Your task to perform on an android device: all mails in gmail Image 0: 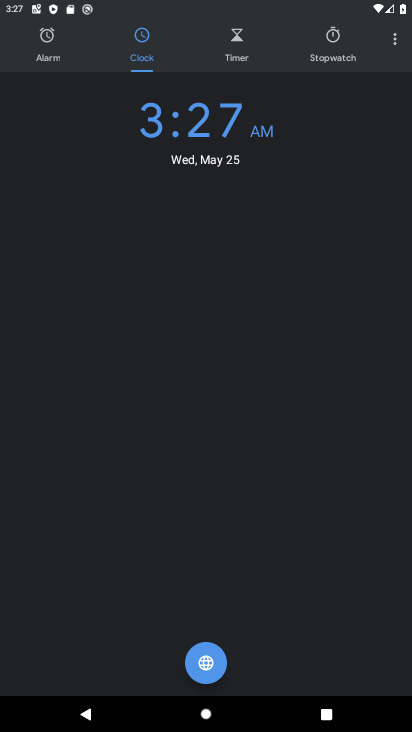
Step 0: press home button
Your task to perform on an android device: all mails in gmail Image 1: 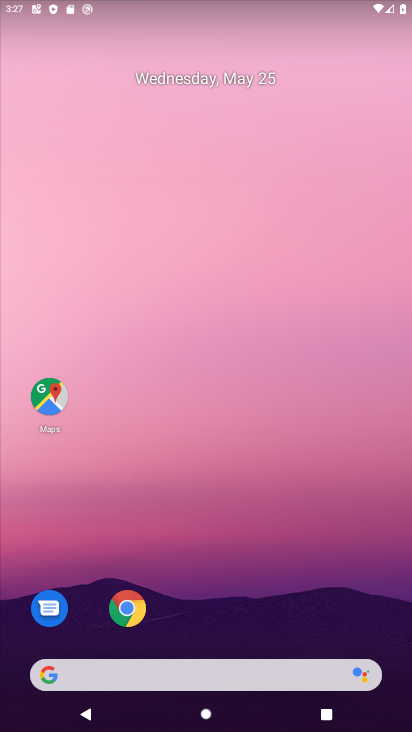
Step 1: drag from (168, 628) to (302, 208)
Your task to perform on an android device: all mails in gmail Image 2: 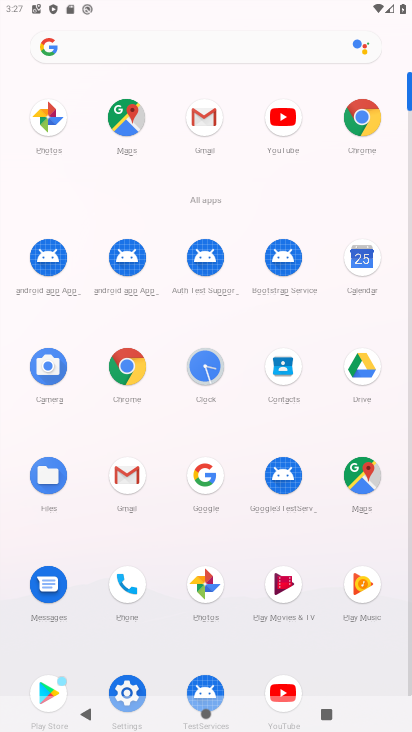
Step 2: click (205, 133)
Your task to perform on an android device: all mails in gmail Image 3: 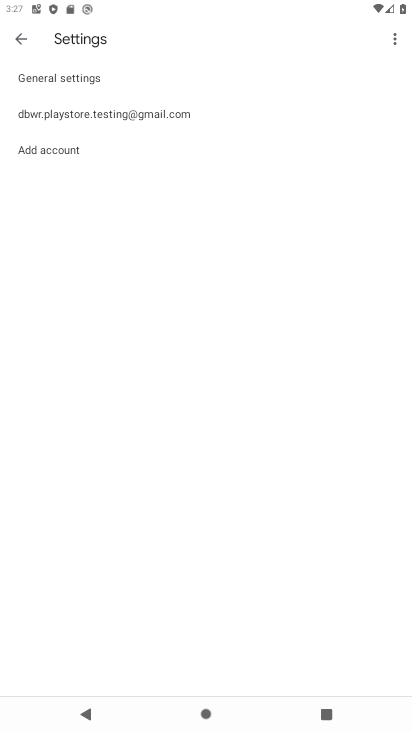
Step 3: click (18, 47)
Your task to perform on an android device: all mails in gmail Image 4: 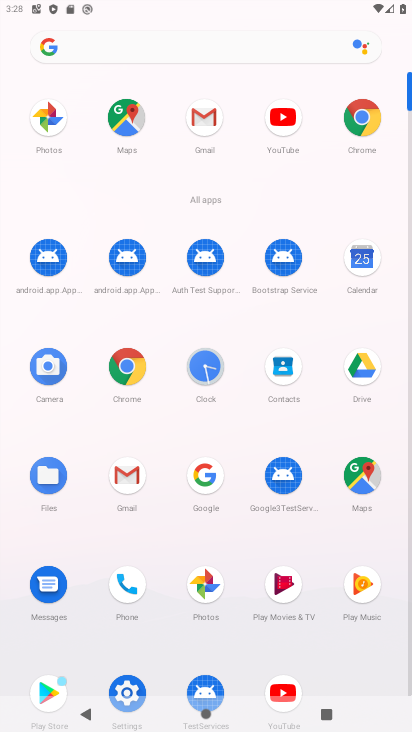
Step 4: click (131, 470)
Your task to perform on an android device: all mails in gmail Image 5: 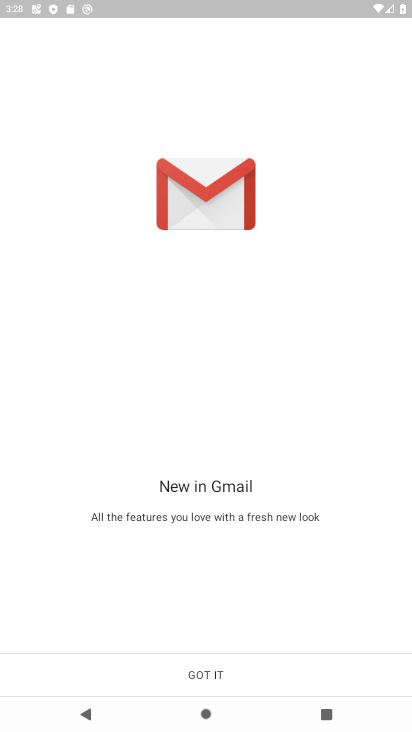
Step 5: click (223, 660)
Your task to perform on an android device: all mails in gmail Image 6: 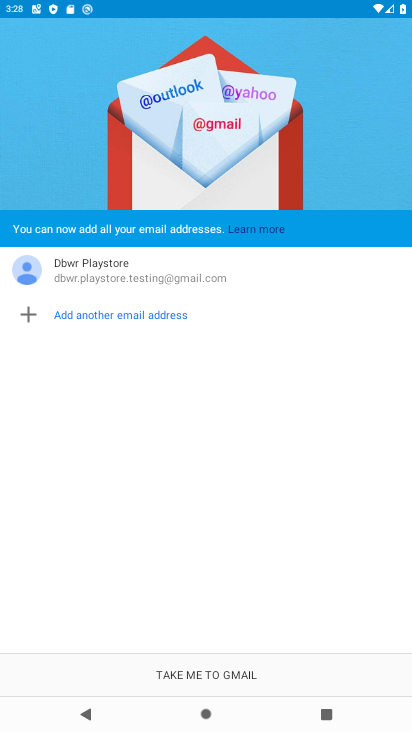
Step 6: click (206, 673)
Your task to perform on an android device: all mails in gmail Image 7: 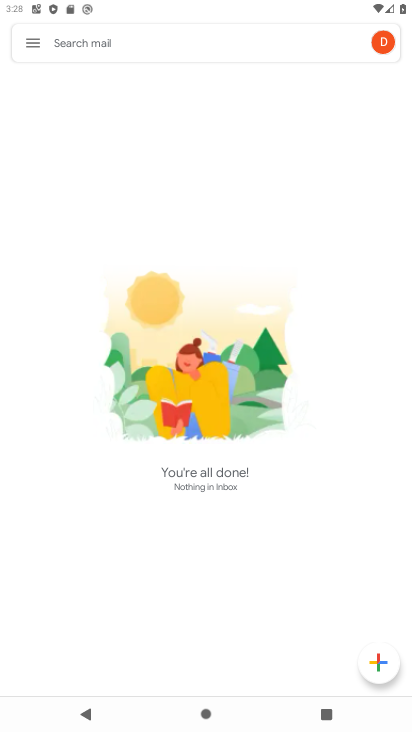
Step 7: click (37, 52)
Your task to perform on an android device: all mails in gmail Image 8: 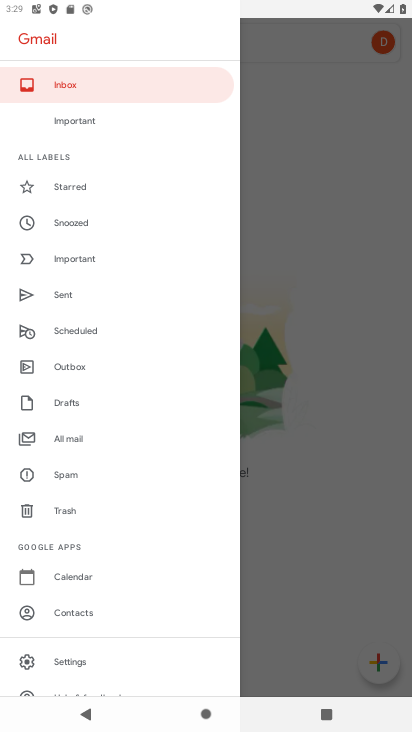
Step 8: click (84, 434)
Your task to perform on an android device: all mails in gmail Image 9: 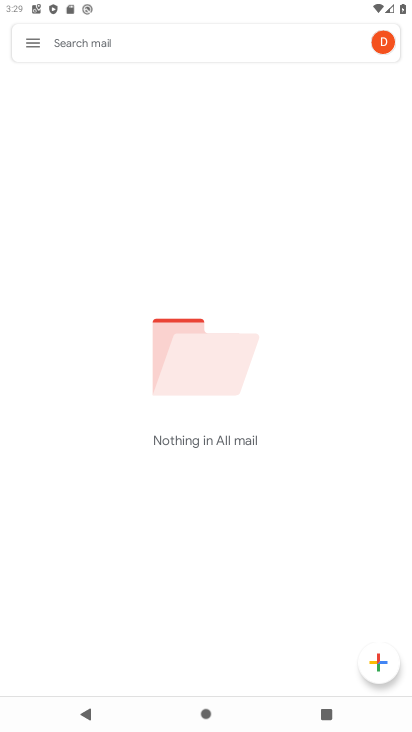
Step 9: task complete